Your task to perform on an android device: Open Google Maps and go to "Timeline" Image 0: 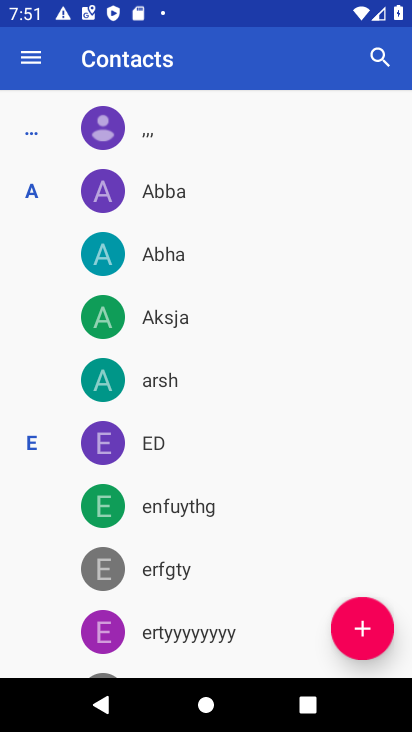
Step 0: press home button
Your task to perform on an android device: Open Google Maps and go to "Timeline" Image 1: 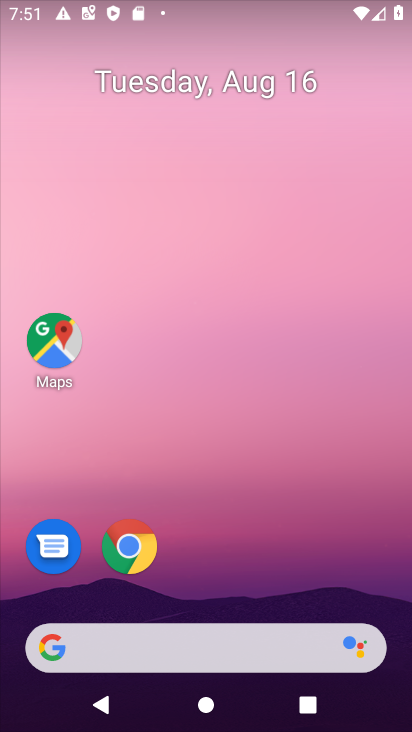
Step 1: click (43, 334)
Your task to perform on an android device: Open Google Maps and go to "Timeline" Image 2: 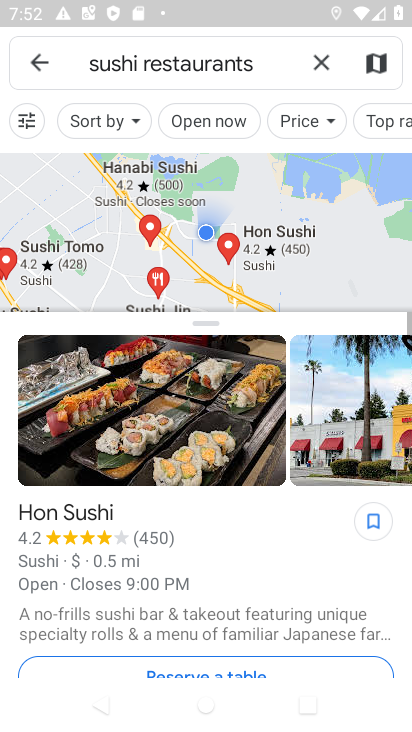
Step 2: click (42, 59)
Your task to perform on an android device: Open Google Maps and go to "Timeline" Image 3: 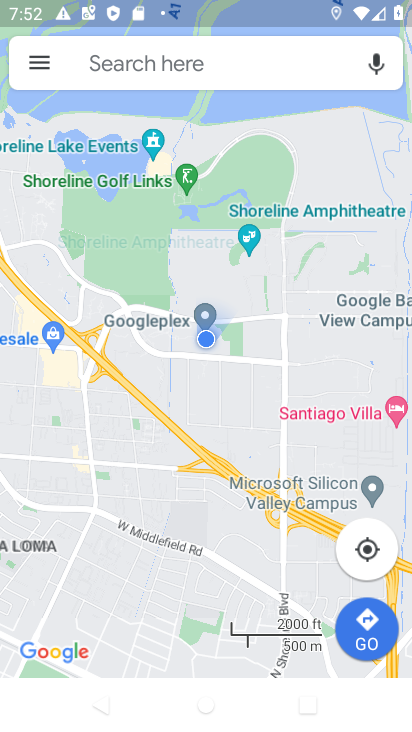
Step 3: click (42, 54)
Your task to perform on an android device: Open Google Maps and go to "Timeline" Image 4: 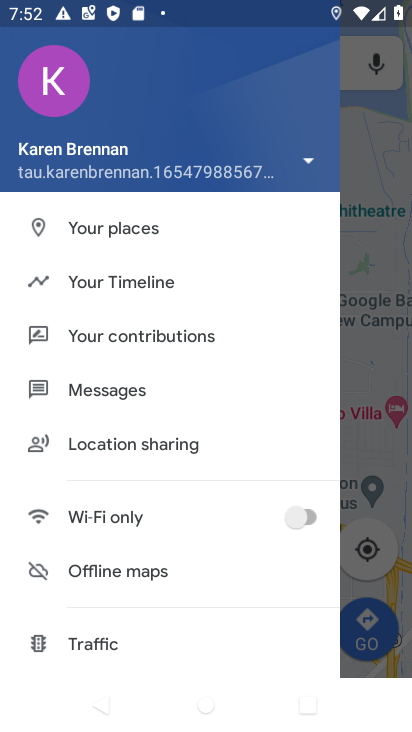
Step 4: click (98, 278)
Your task to perform on an android device: Open Google Maps and go to "Timeline" Image 5: 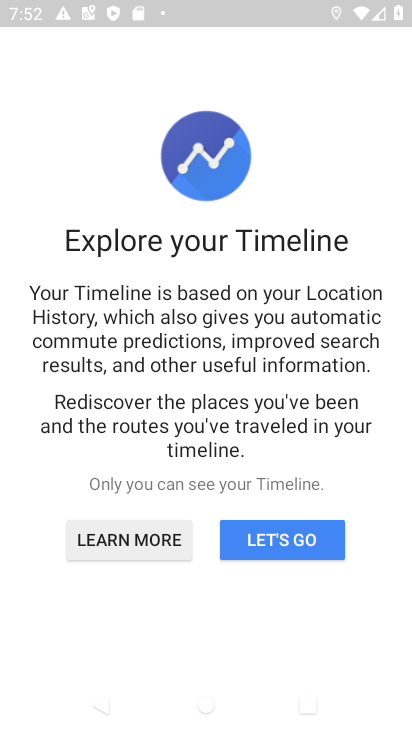
Step 5: click (319, 541)
Your task to perform on an android device: Open Google Maps and go to "Timeline" Image 6: 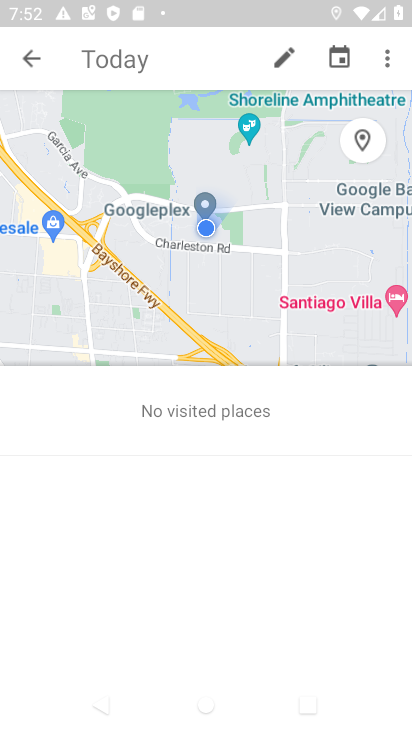
Step 6: task complete